Your task to perform on an android device: open app "DoorDash - Dasher" (install if not already installed) Image 0: 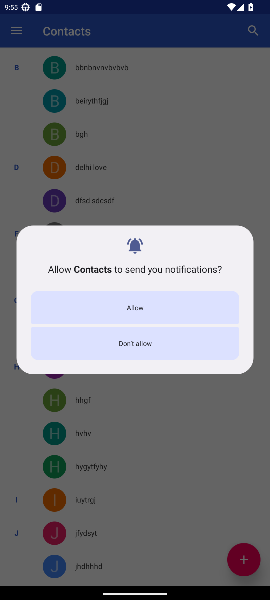
Step 0: press home button
Your task to perform on an android device: open app "DoorDash - Dasher" (install if not already installed) Image 1: 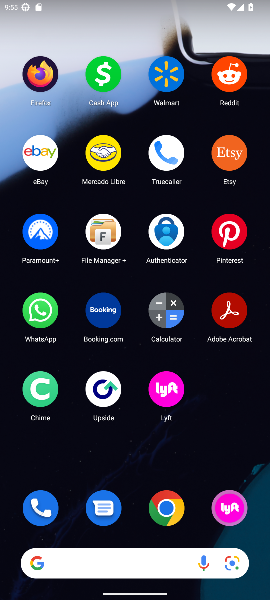
Step 1: drag from (171, 471) to (198, 11)
Your task to perform on an android device: open app "DoorDash - Dasher" (install if not already installed) Image 2: 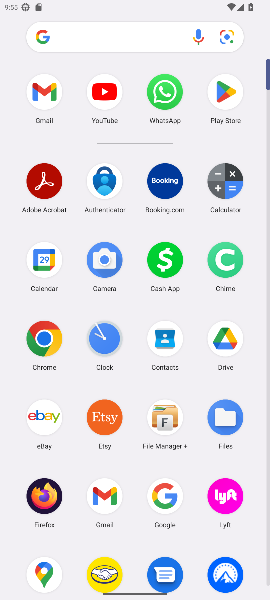
Step 2: click (228, 89)
Your task to perform on an android device: open app "DoorDash - Dasher" (install if not already installed) Image 3: 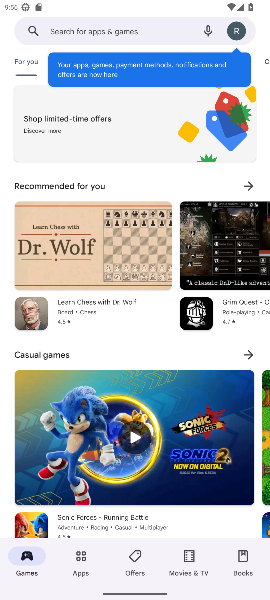
Step 3: click (105, 35)
Your task to perform on an android device: open app "DoorDash - Dasher" (install if not already installed) Image 4: 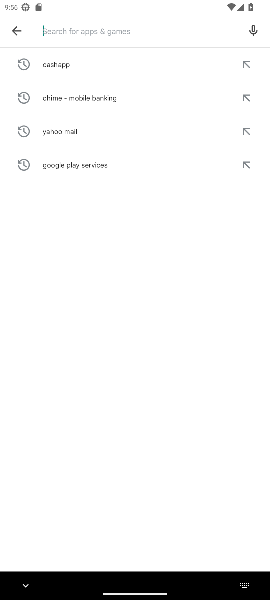
Step 4: type "doordash - dasher"
Your task to perform on an android device: open app "DoorDash - Dasher" (install if not already installed) Image 5: 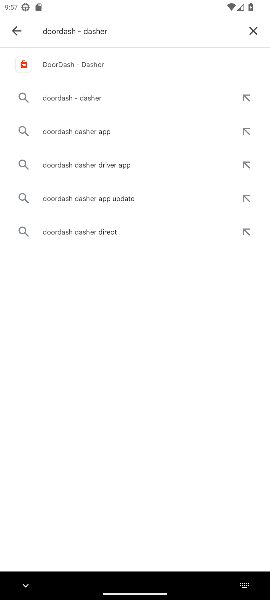
Step 5: click (76, 62)
Your task to perform on an android device: open app "DoorDash - Dasher" (install if not already installed) Image 6: 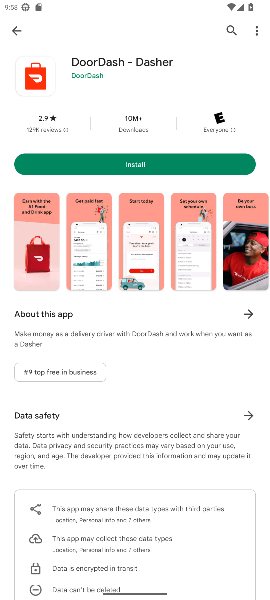
Step 6: click (151, 168)
Your task to perform on an android device: open app "DoorDash - Dasher" (install if not already installed) Image 7: 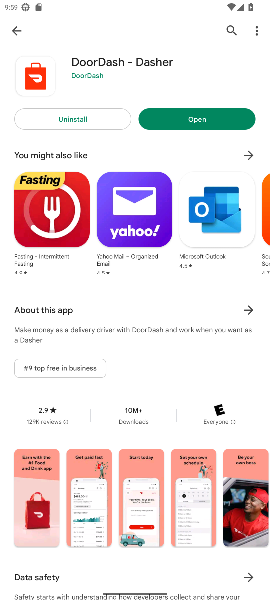
Step 7: click (200, 119)
Your task to perform on an android device: open app "DoorDash - Dasher" (install if not already installed) Image 8: 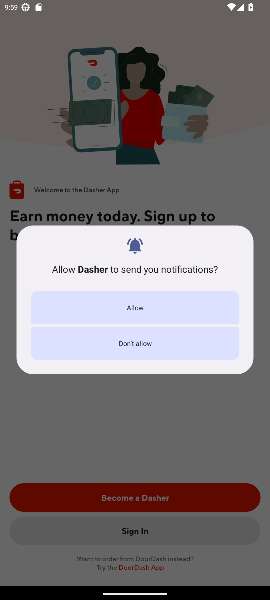
Step 8: task complete